Your task to perform on an android device: toggle sleep mode Image 0: 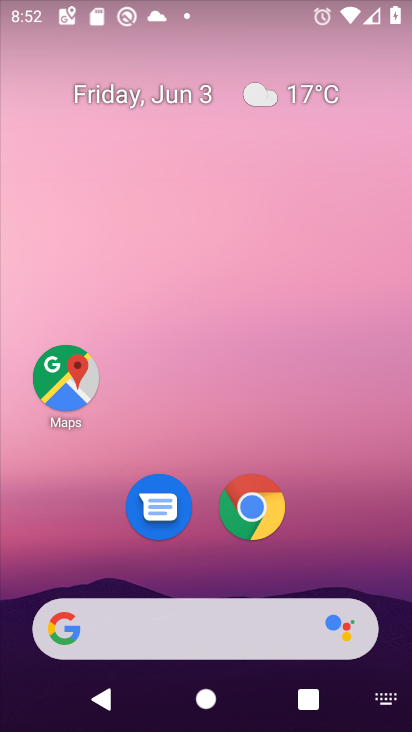
Step 0: drag from (352, 485) to (206, 38)
Your task to perform on an android device: toggle sleep mode Image 1: 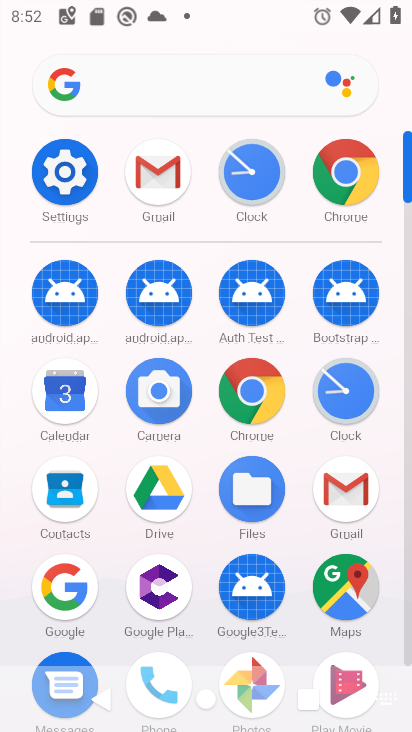
Step 1: click (50, 149)
Your task to perform on an android device: toggle sleep mode Image 2: 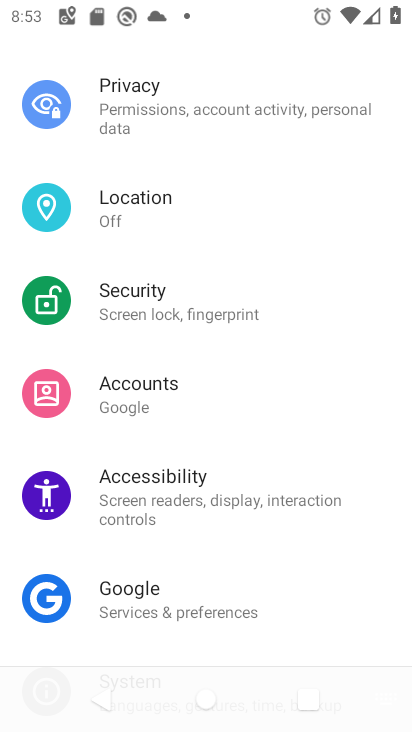
Step 2: drag from (275, 203) to (281, 644)
Your task to perform on an android device: toggle sleep mode Image 3: 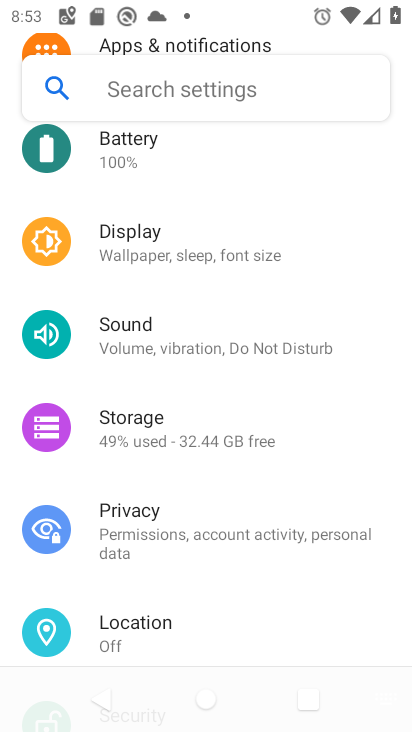
Step 3: click (228, 245)
Your task to perform on an android device: toggle sleep mode Image 4: 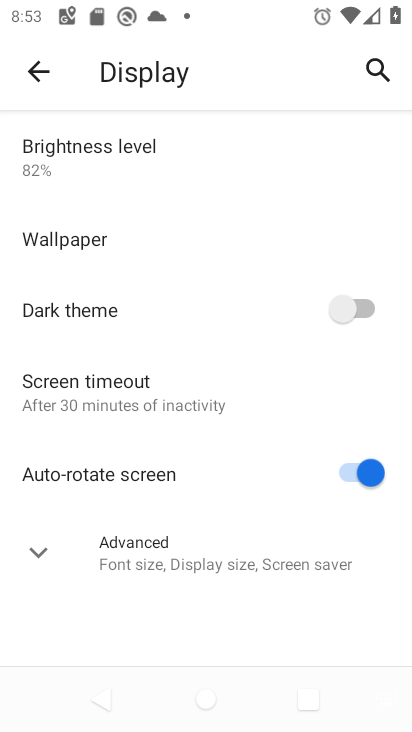
Step 4: task complete